Your task to perform on an android device: Search for vegetarian restaurants on Maps Image 0: 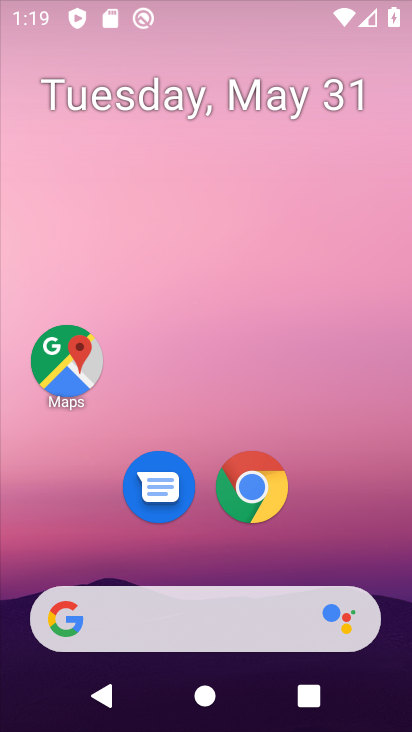
Step 0: drag from (74, 571) to (179, 128)
Your task to perform on an android device: Search for vegetarian restaurants on Maps Image 1: 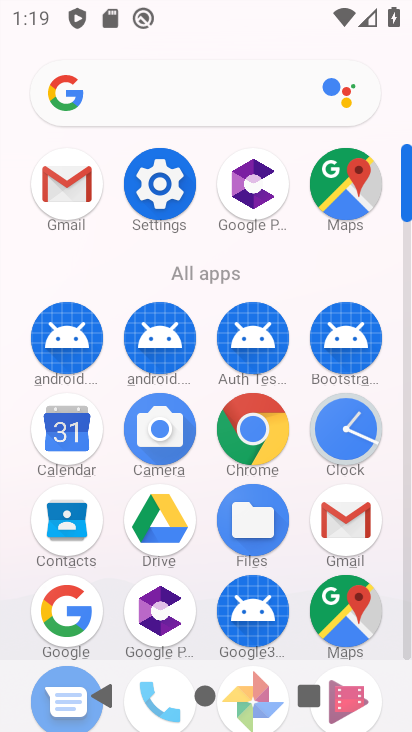
Step 1: click (351, 594)
Your task to perform on an android device: Search for vegetarian restaurants on Maps Image 2: 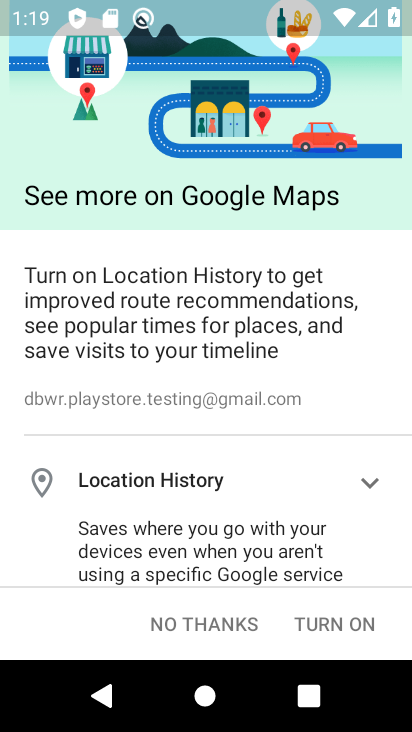
Step 2: click (202, 623)
Your task to perform on an android device: Search for vegetarian restaurants on Maps Image 3: 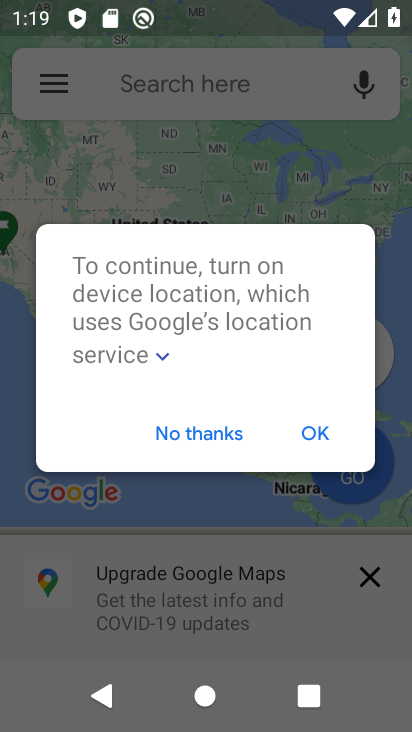
Step 3: click (304, 424)
Your task to perform on an android device: Search for vegetarian restaurants on Maps Image 4: 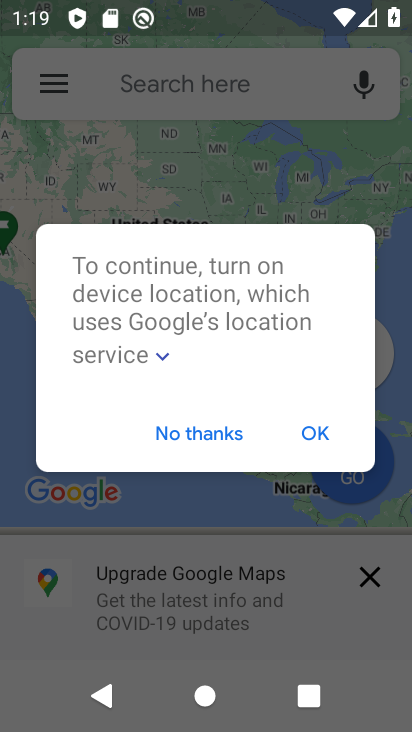
Step 4: click (329, 438)
Your task to perform on an android device: Search for vegetarian restaurants on Maps Image 5: 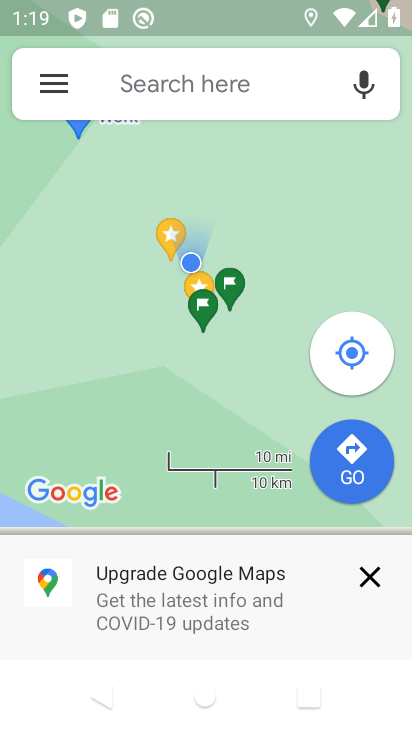
Step 5: click (376, 578)
Your task to perform on an android device: Search for vegetarian restaurants on Maps Image 6: 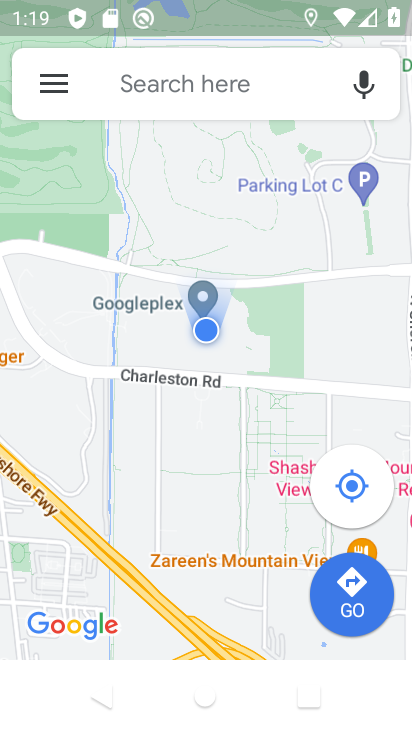
Step 6: click (203, 99)
Your task to perform on an android device: Search for vegetarian restaurants on Maps Image 7: 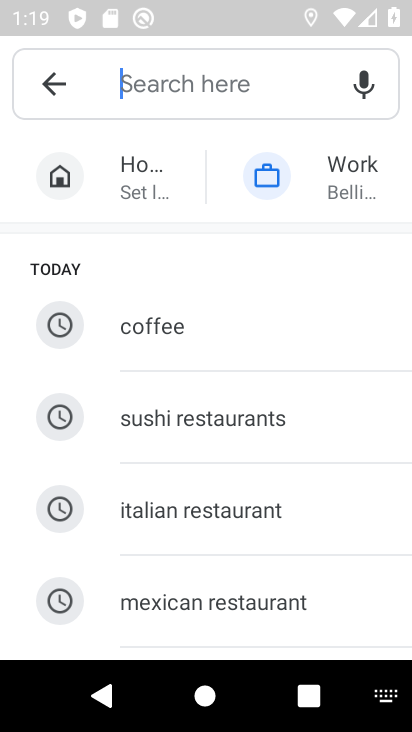
Step 7: type "vegetarian restaurants"
Your task to perform on an android device: Search for vegetarian restaurants on Maps Image 8: 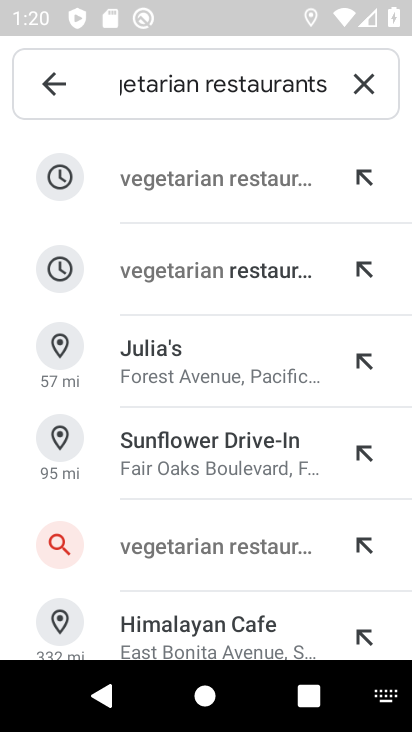
Step 8: click (182, 192)
Your task to perform on an android device: Search for vegetarian restaurants on Maps Image 9: 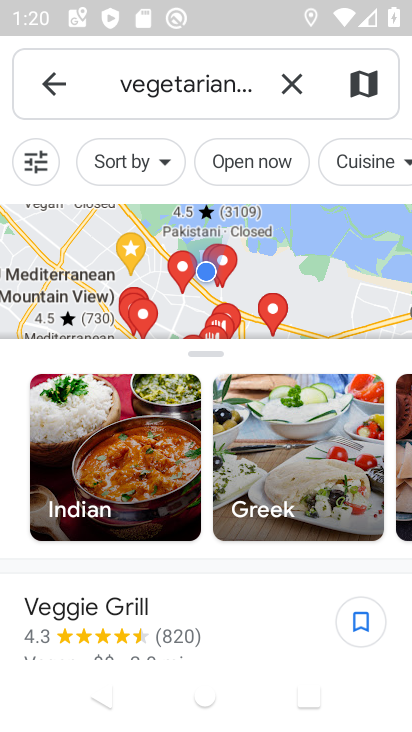
Step 9: task complete